Your task to perform on an android device: open wifi settings Image 0: 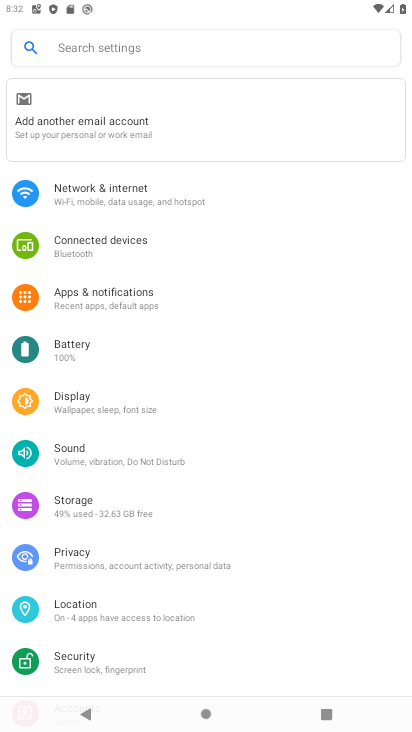
Step 0: click (114, 196)
Your task to perform on an android device: open wifi settings Image 1: 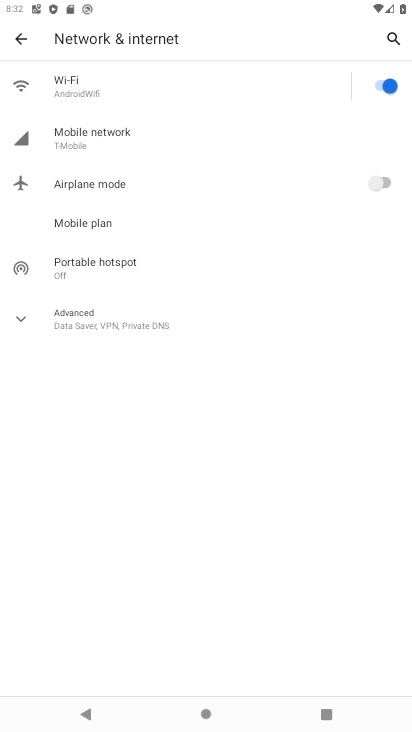
Step 1: task complete